Your task to perform on an android device: Open the map Image 0: 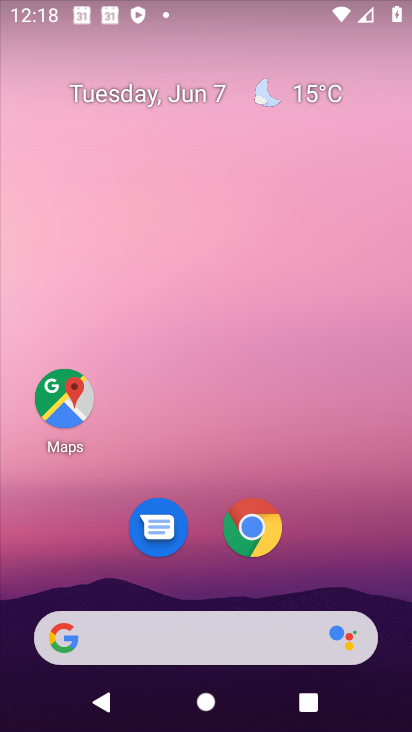
Step 0: drag from (230, 670) to (184, 264)
Your task to perform on an android device: Open the map Image 1: 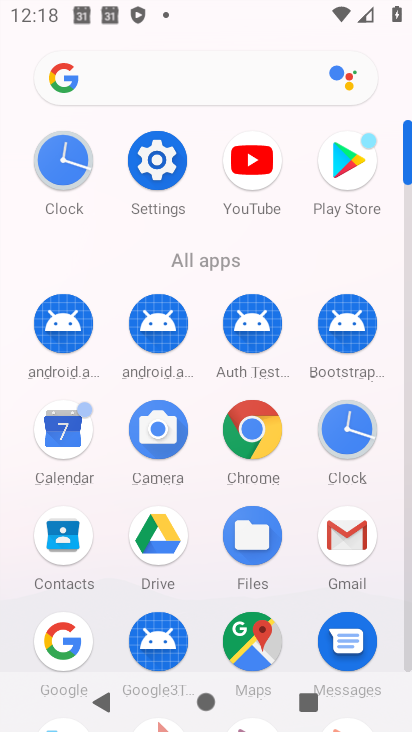
Step 1: drag from (194, 114) to (171, 223)
Your task to perform on an android device: Open the map Image 2: 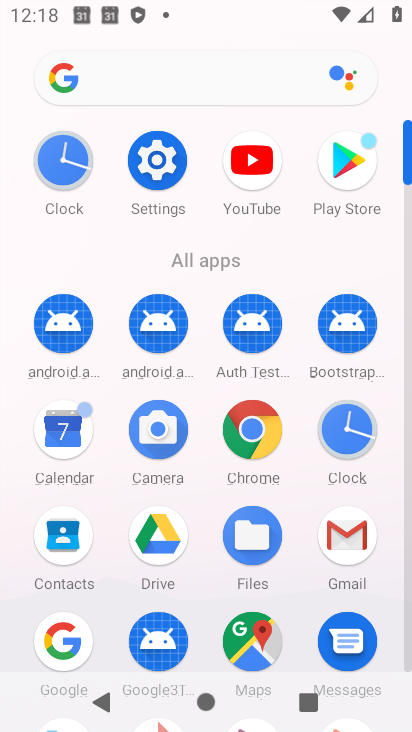
Step 2: click (255, 643)
Your task to perform on an android device: Open the map Image 3: 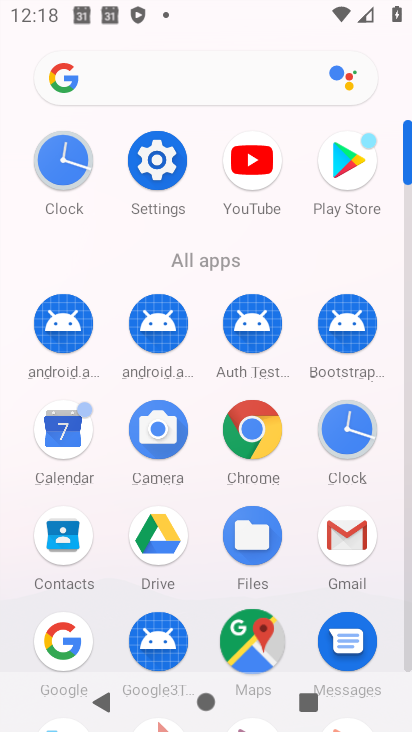
Step 3: click (253, 638)
Your task to perform on an android device: Open the map Image 4: 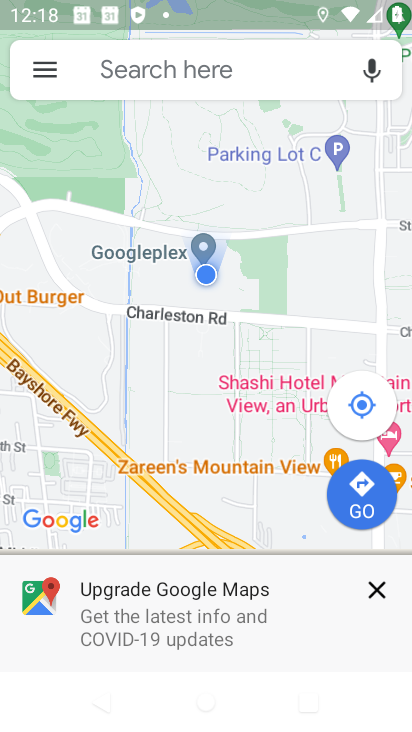
Step 4: task complete